Your task to perform on an android device: Search for sushi restaurants on Maps Image 0: 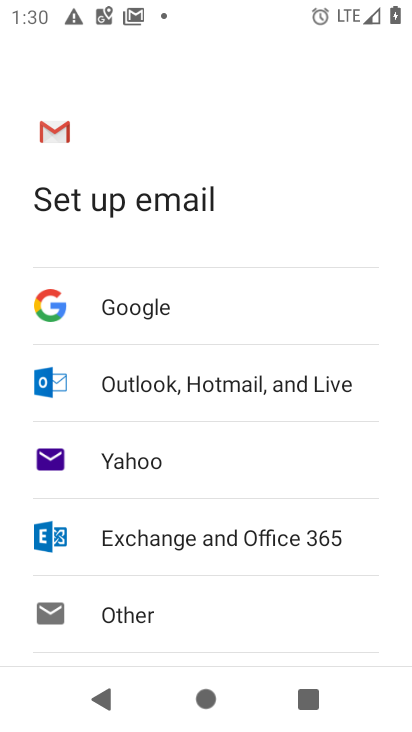
Step 0: press home button
Your task to perform on an android device: Search for sushi restaurants on Maps Image 1: 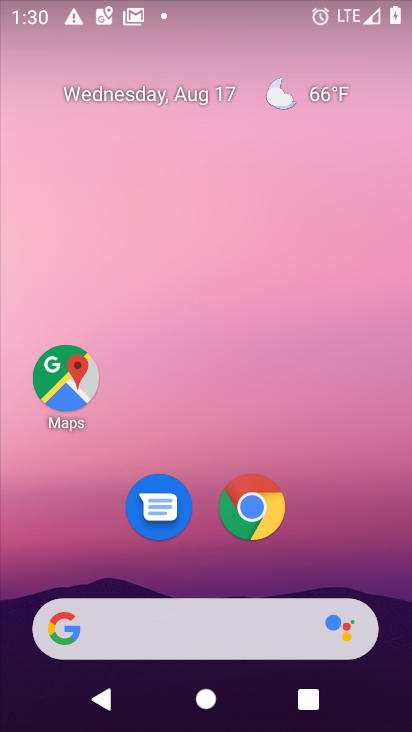
Step 1: click (20, 363)
Your task to perform on an android device: Search for sushi restaurants on Maps Image 2: 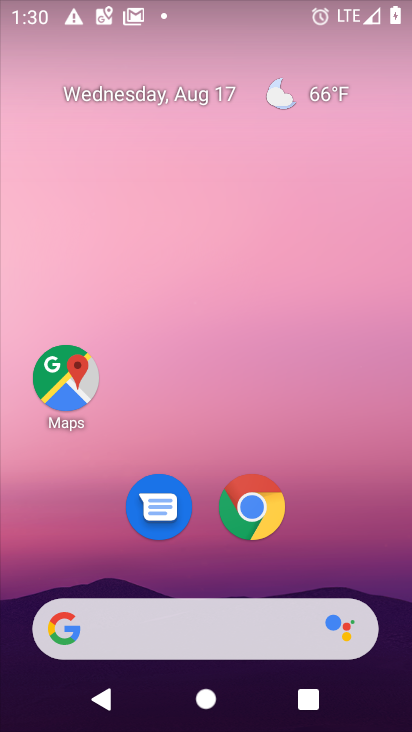
Step 2: click (89, 374)
Your task to perform on an android device: Search for sushi restaurants on Maps Image 3: 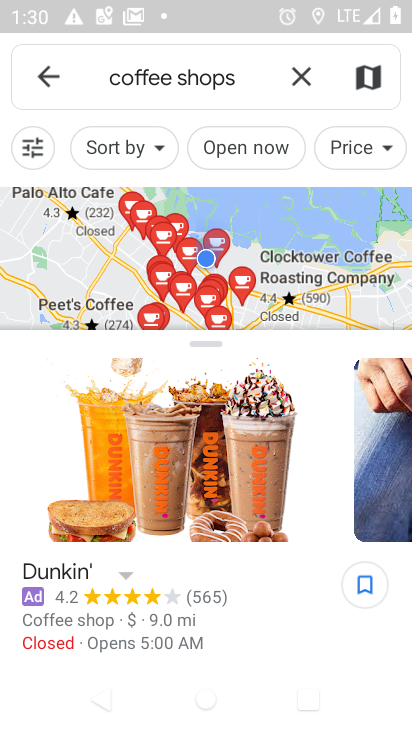
Step 3: click (291, 76)
Your task to perform on an android device: Search for sushi restaurants on Maps Image 4: 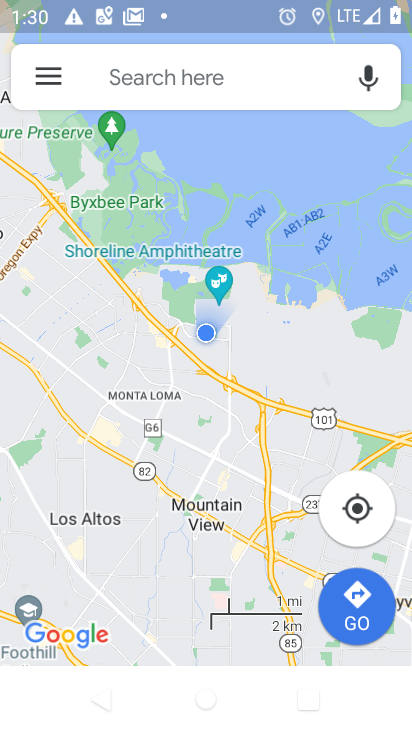
Step 4: click (186, 90)
Your task to perform on an android device: Search for sushi restaurants on Maps Image 5: 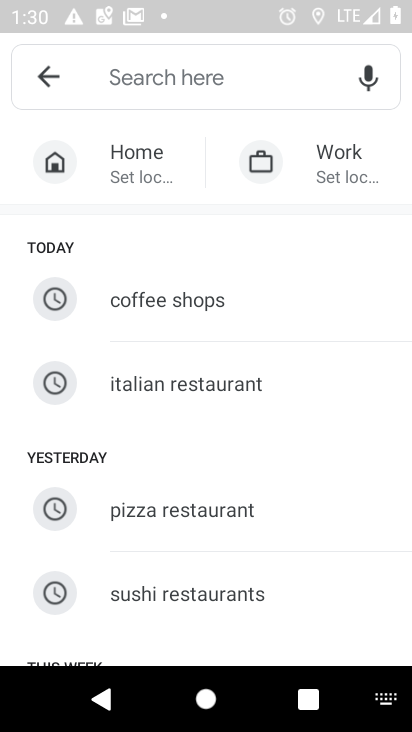
Step 5: click (176, 594)
Your task to perform on an android device: Search for sushi restaurants on Maps Image 6: 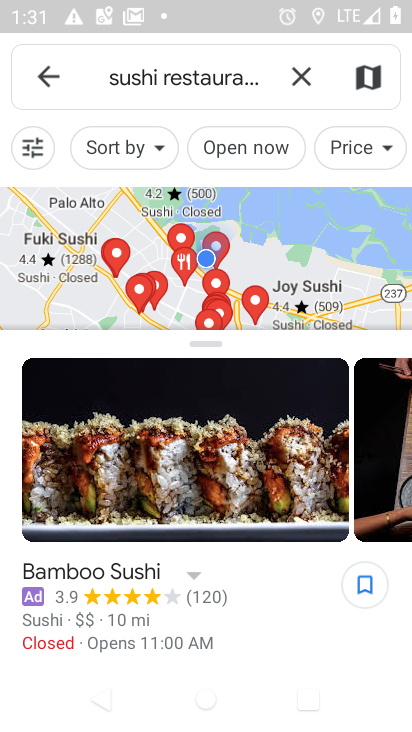
Step 6: click (168, 583)
Your task to perform on an android device: Search for sushi restaurants on Maps Image 7: 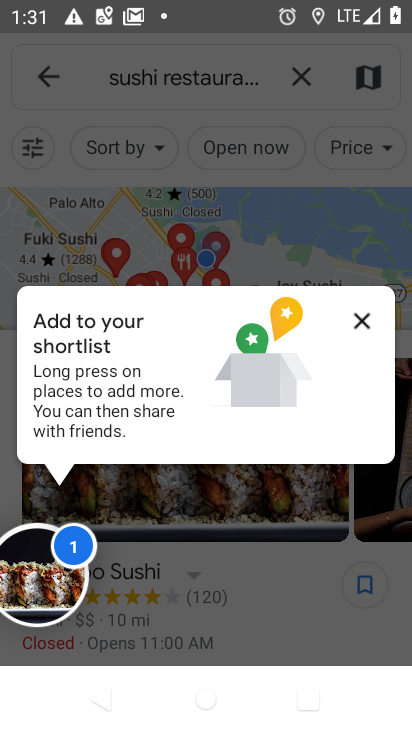
Step 7: click (359, 315)
Your task to perform on an android device: Search for sushi restaurants on Maps Image 8: 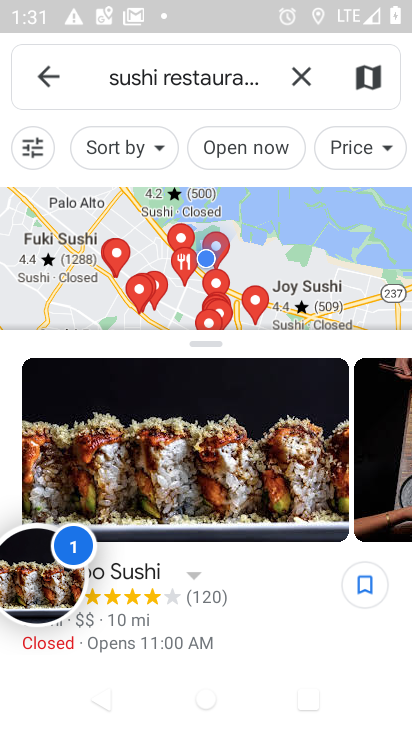
Step 8: task complete